Your task to perform on an android device: turn on javascript in the chrome app Image 0: 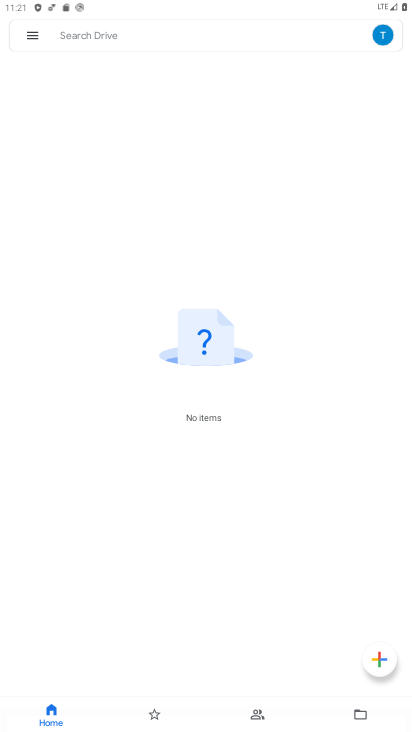
Step 0: press home button
Your task to perform on an android device: turn on javascript in the chrome app Image 1: 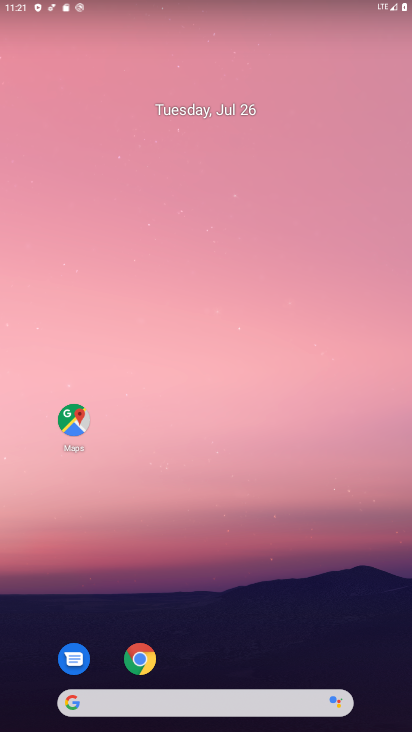
Step 1: drag from (132, 540) to (406, 8)
Your task to perform on an android device: turn on javascript in the chrome app Image 2: 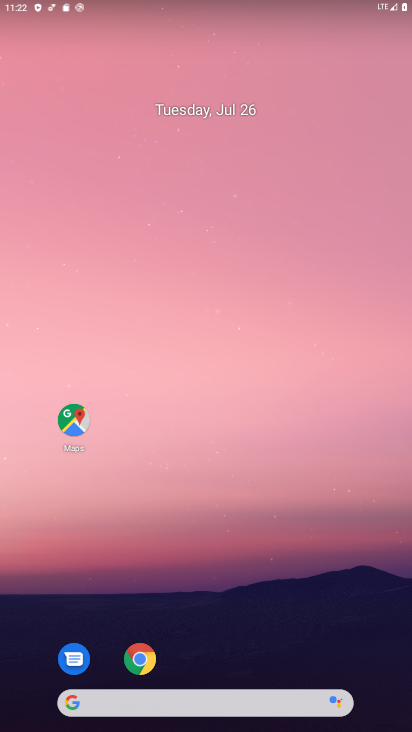
Step 2: click (134, 651)
Your task to perform on an android device: turn on javascript in the chrome app Image 3: 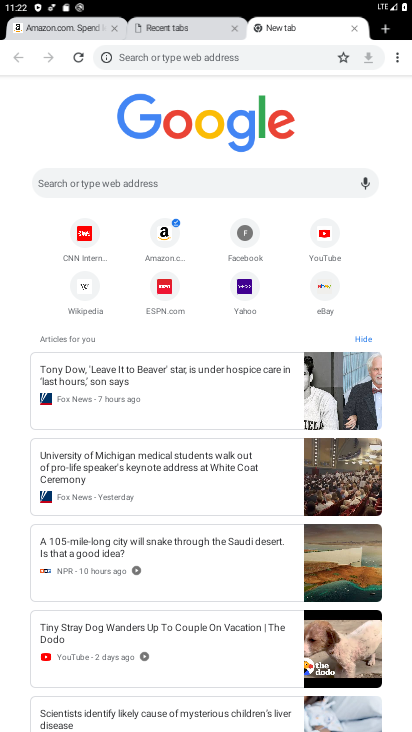
Step 3: click (394, 61)
Your task to perform on an android device: turn on javascript in the chrome app Image 4: 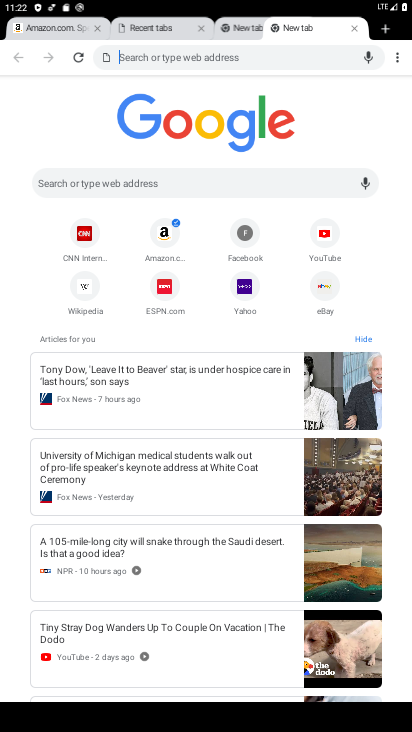
Step 4: click (398, 53)
Your task to perform on an android device: turn on javascript in the chrome app Image 5: 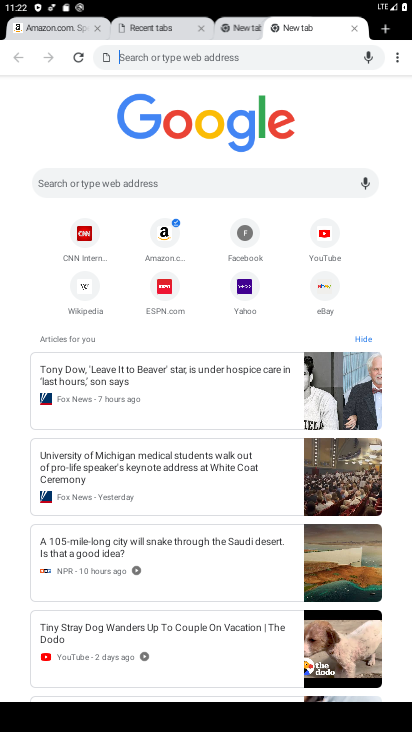
Step 5: click (398, 53)
Your task to perform on an android device: turn on javascript in the chrome app Image 6: 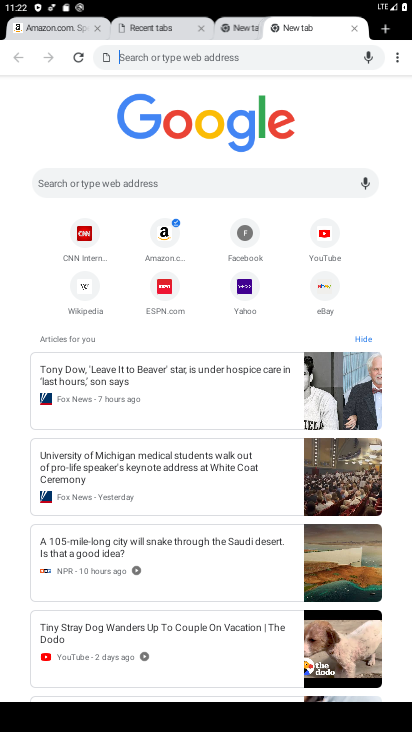
Step 6: click (398, 53)
Your task to perform on an android device: turn on javascript in the chrome app Image 7: 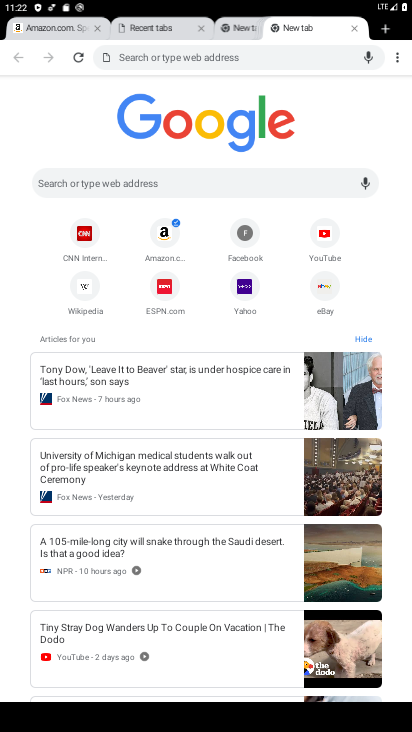
Step 7: click (395, 64)
Your task to perform on an android device: turn on javascript in the chrome app Image 8: 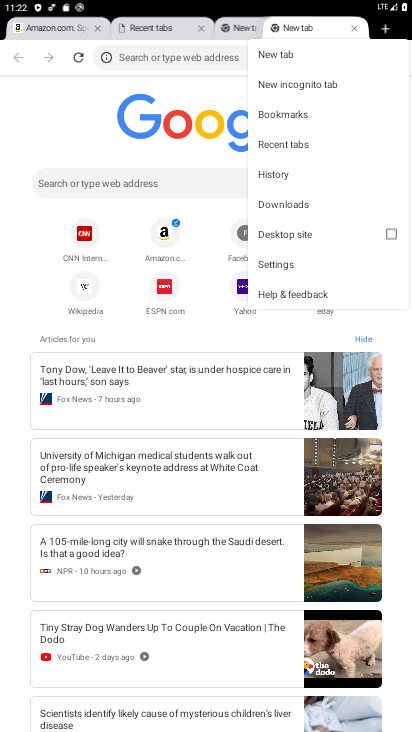
Step 8: click (286, 265)
Your task to perform on an android device: turn on javascript in the chrome app Image 9: 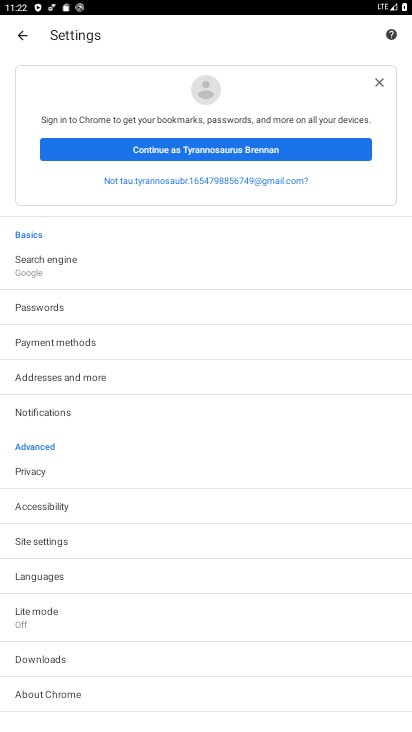
Step 9: click (59, 541)
Your task to perform on an android device: turn on javascript in the chrome app Image 10: 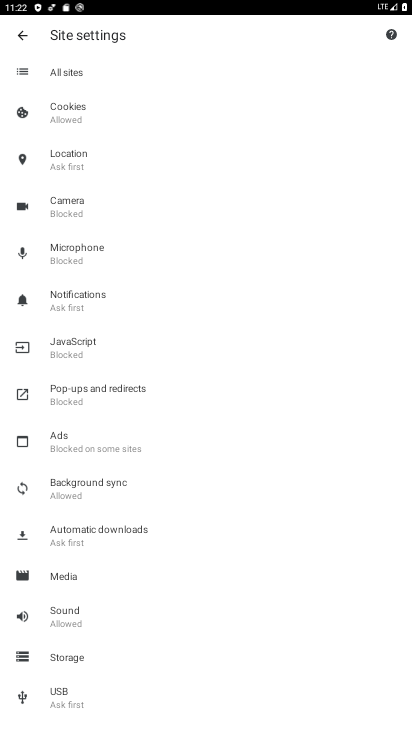
Step 10: click (61, 353)
Your task to perform on an android device: turn on javascript in the chrome app Image 11: 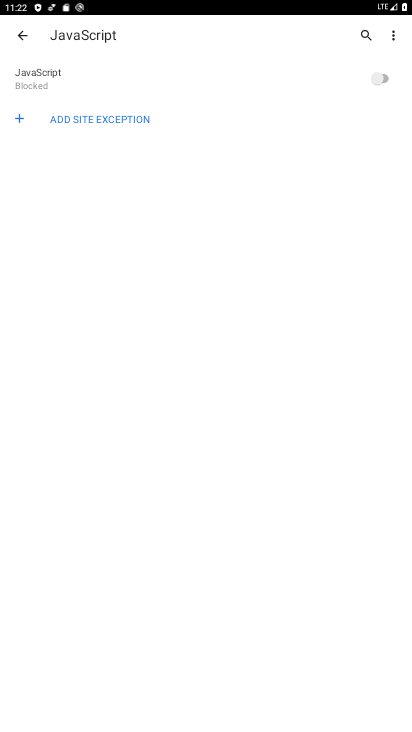
Step 11: click (383, 79)
Your task to perform on an android device: turn on javascript in the chrome app Image 12: 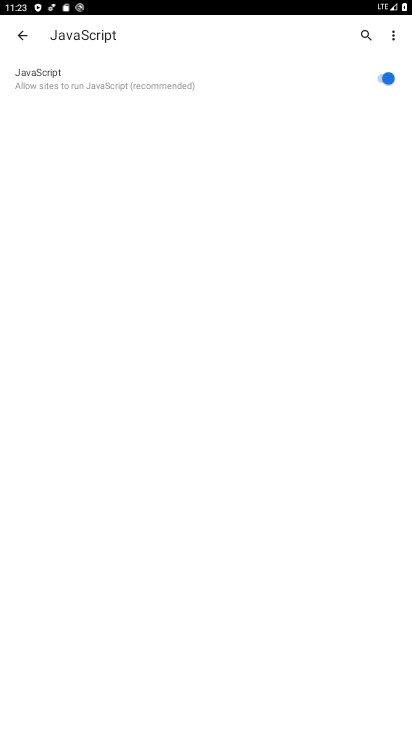
Step 12: task complete